Your task to perform on an android device: change the upload size in google photos Image 0: 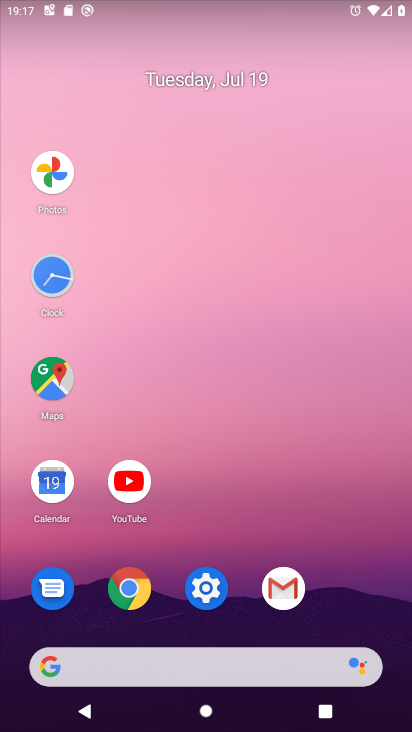
Step 0: click (46, 163)
Your task to perform on an android device: change the upload size in google photos Image 1: 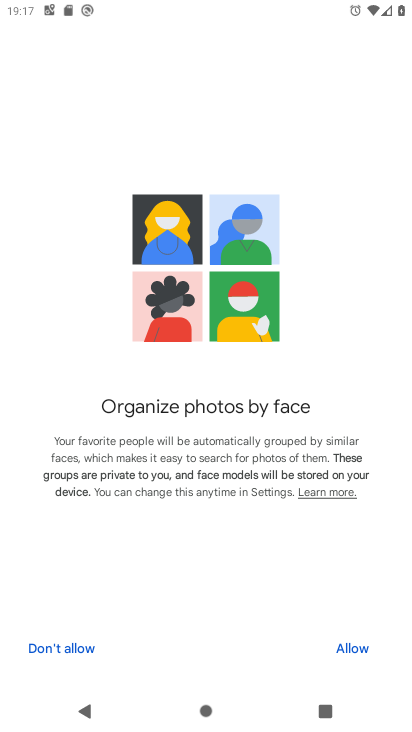
Step 1: click (354, 640)
Your task to perform on an android device: change the upload size in google photos Image 2: 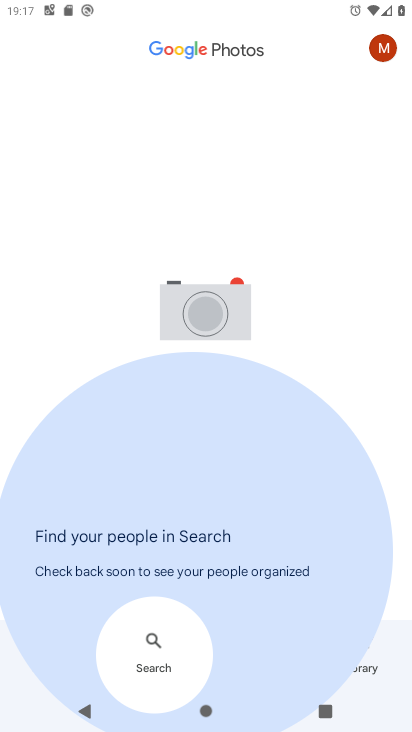
Step 2: click (365, 340)
Your task to perform on an android device: change the upload size in google photos Image 3: 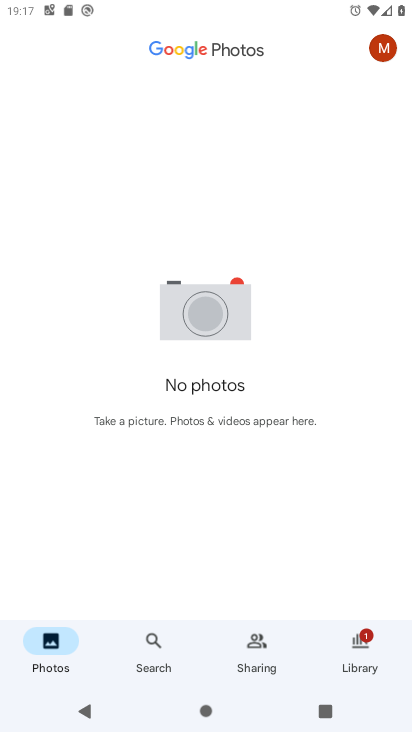
Step 3: click (357, 375)
Your task to perform on an android device: change the upload size in google photos Image 4: 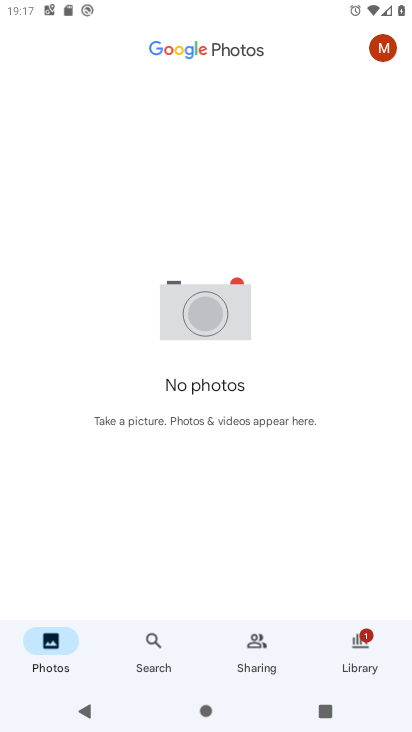
Step 4: click (385, 41)
Your task to perform on an android device: change the upload size in google photos Image 5: 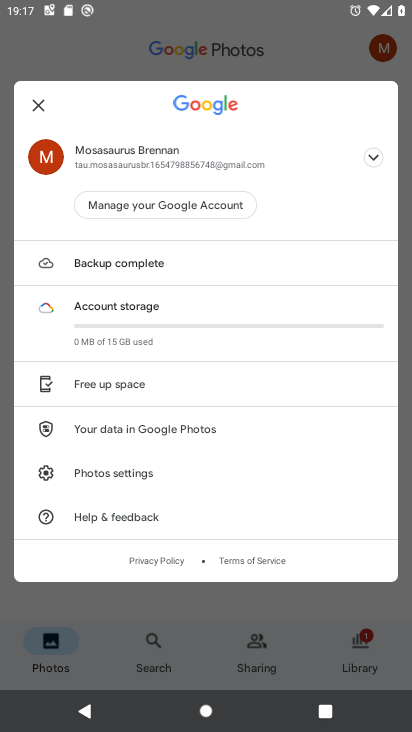
Step 5: click (82, 463)
Your task to perform on an android device: change the upload size in google photos Image 6: 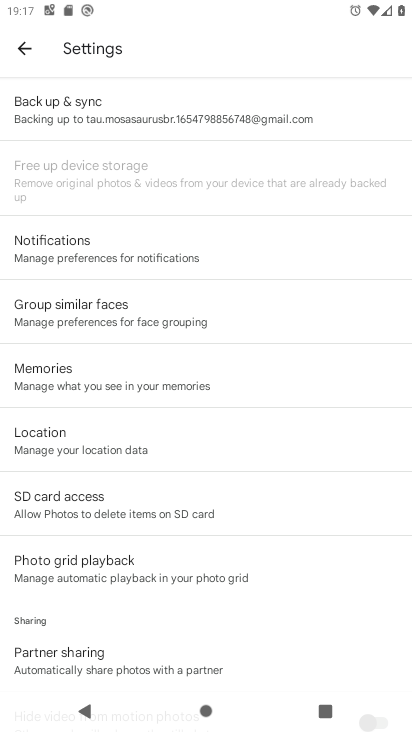
Step 6: click (84, 101)
Your task to perform on an android device: change the upload size in google photos Image 7: 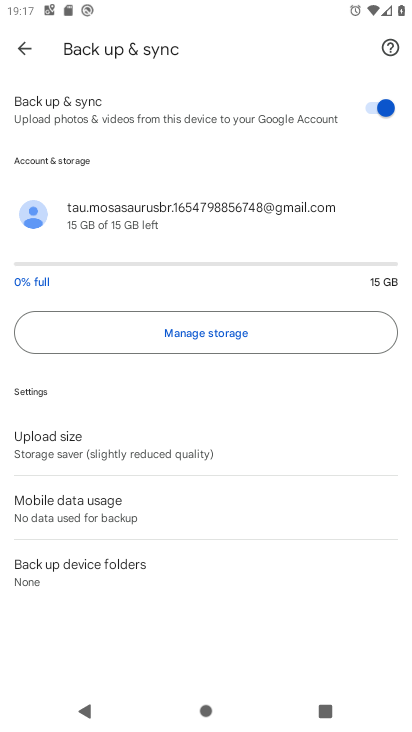
Step 7: click (108, 439)
Your task to perform on an android device: change the upload size in google photos Image 8: 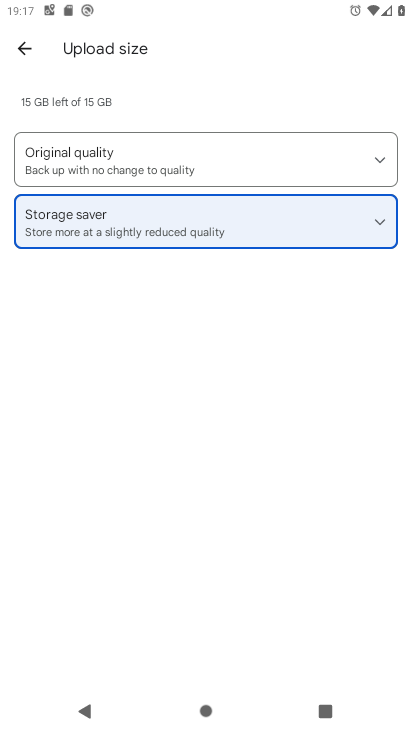
Step 8: click (378, 213)
Your task to perform on an android device: change the upload size in google photos Image 9: 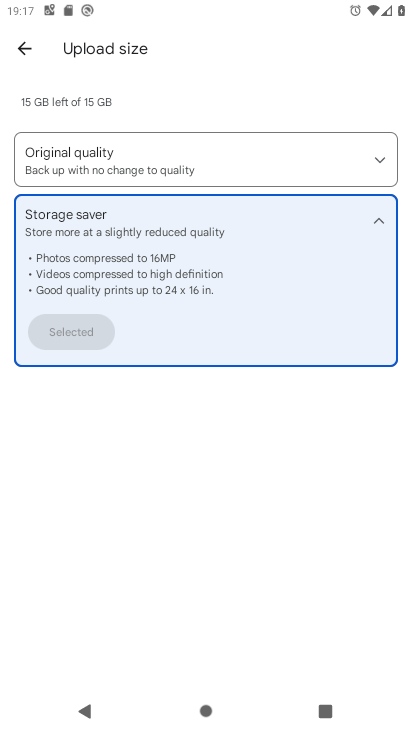
Step 9: click (313, 151)
Your task to perform on an android device: change the upload size in google photos Image 10: 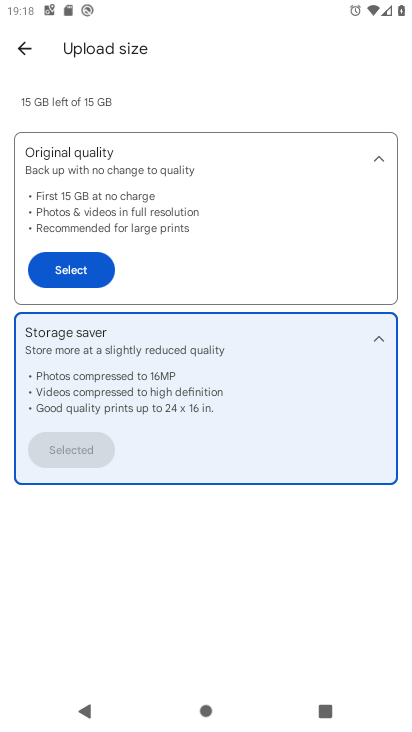
Step 10: click (94, 270)
Your task to perform on an android device: change the upload size in google photos Image 11: 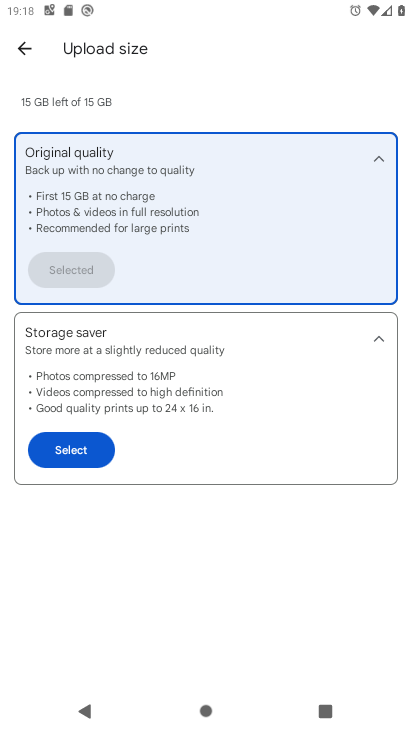
Step 11: click (57, 444)
Your task to perform on an android device: change the upload size in google photos Image 12: 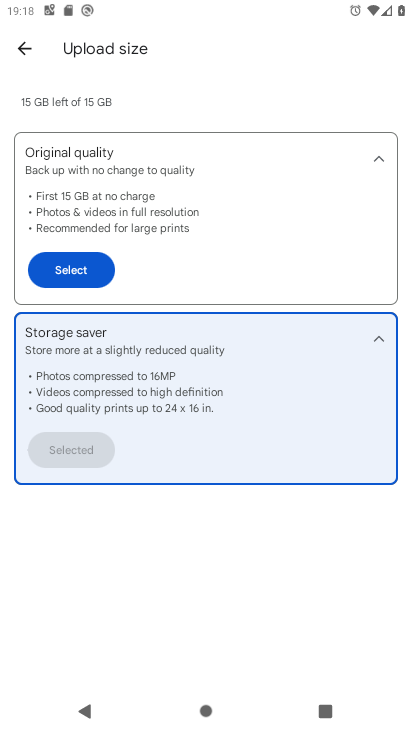
Step 12: task complete